Your task to perform on an android device: Go to notification settings Image 0: 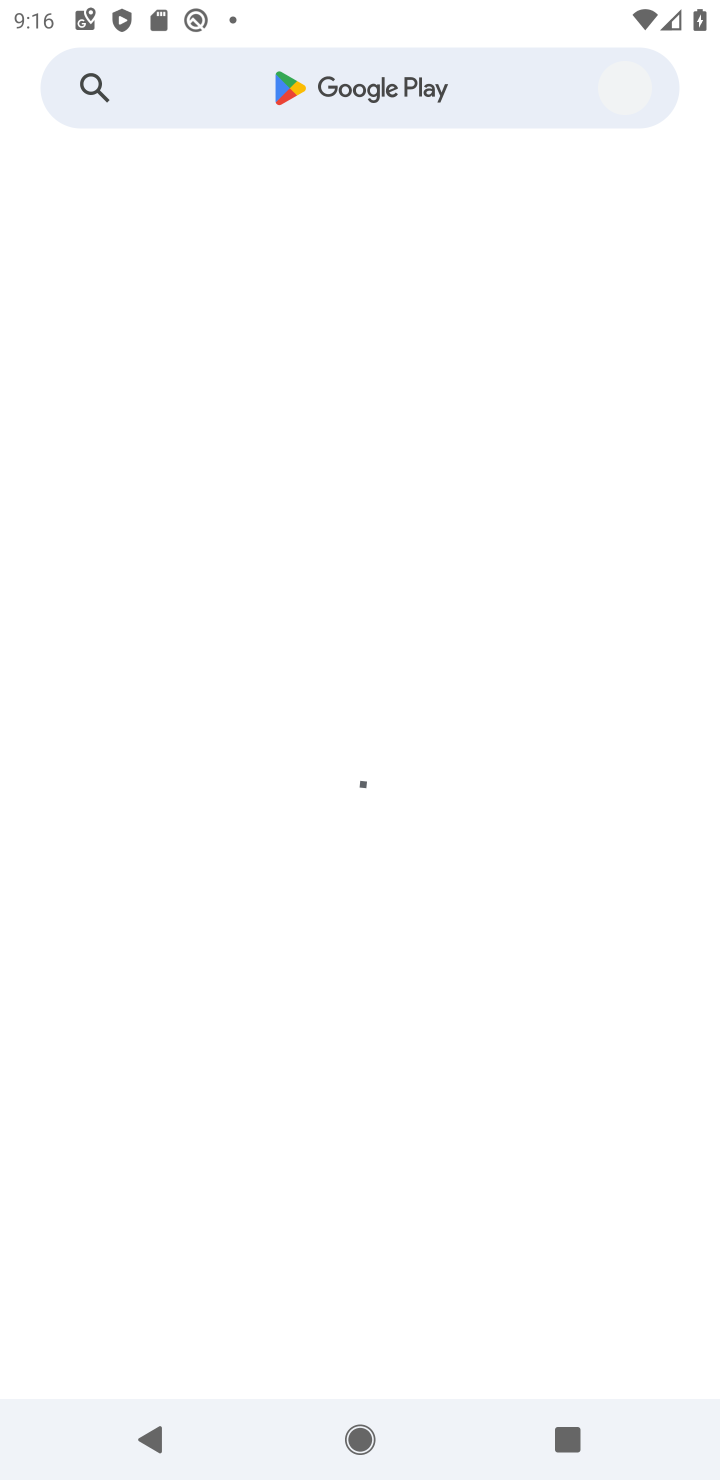
Step 0: press home button
Your task to perform on an android device: Go to notification settings Image 1: 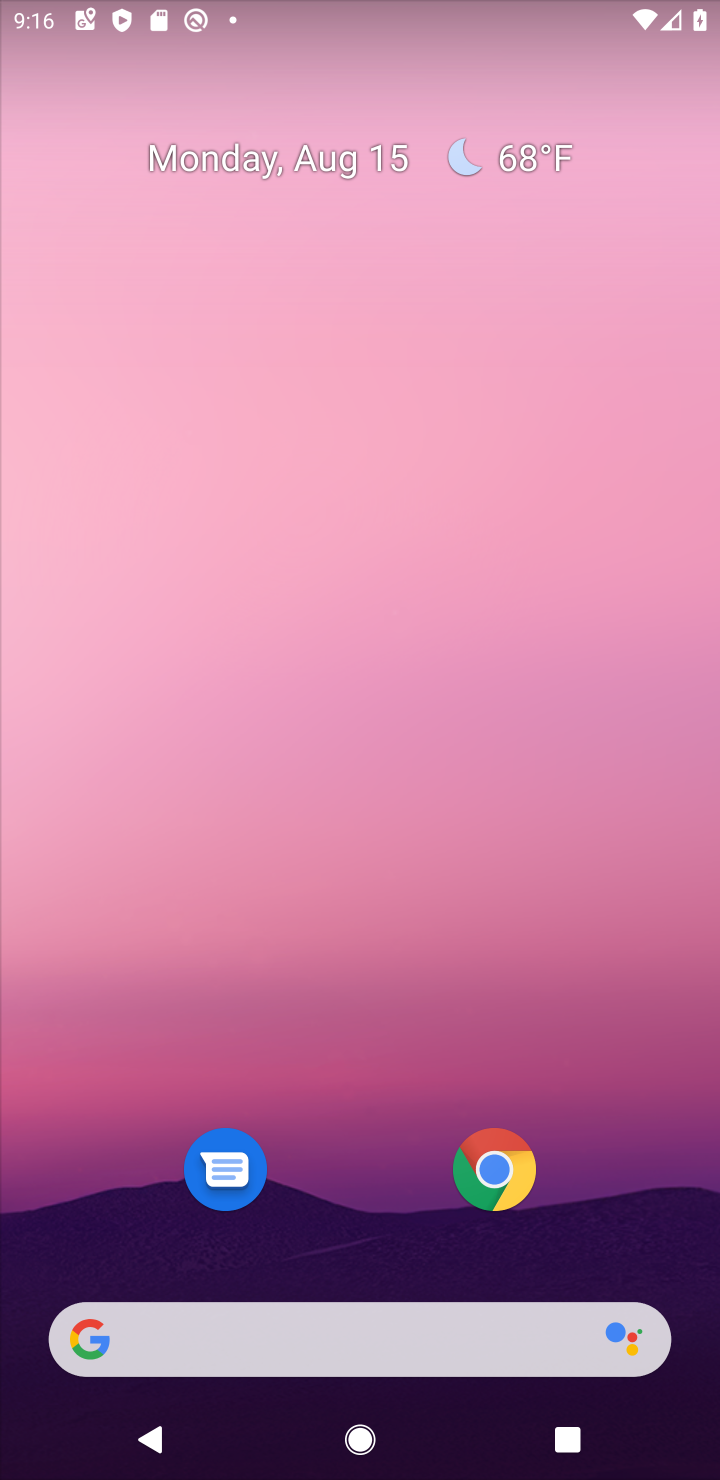
Step 1: drag from (264, 1316) to (384, 134)
Your task to perform on an android device: Go to notification settings Image 2: 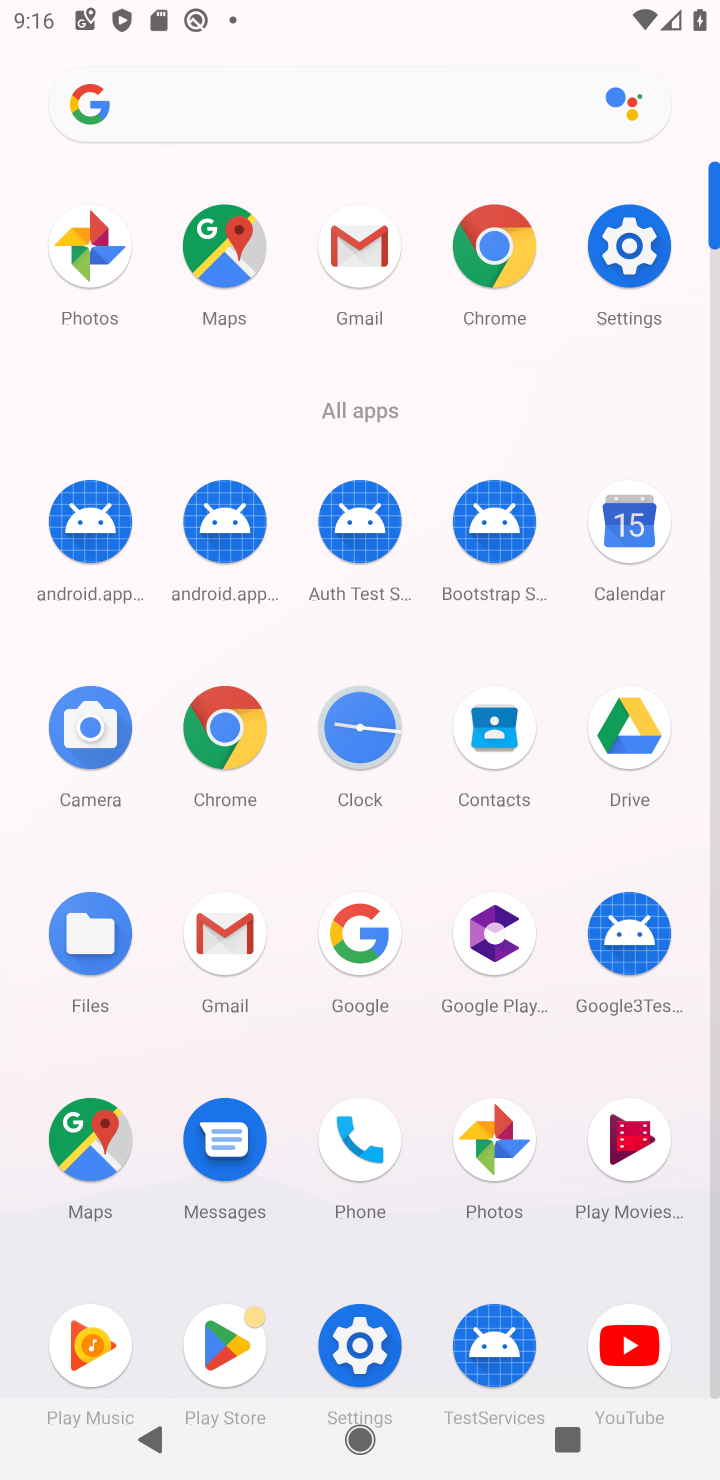
Step 2: click (624, 250)
Your task to perform on an android device: Go to notification settings Image 3: 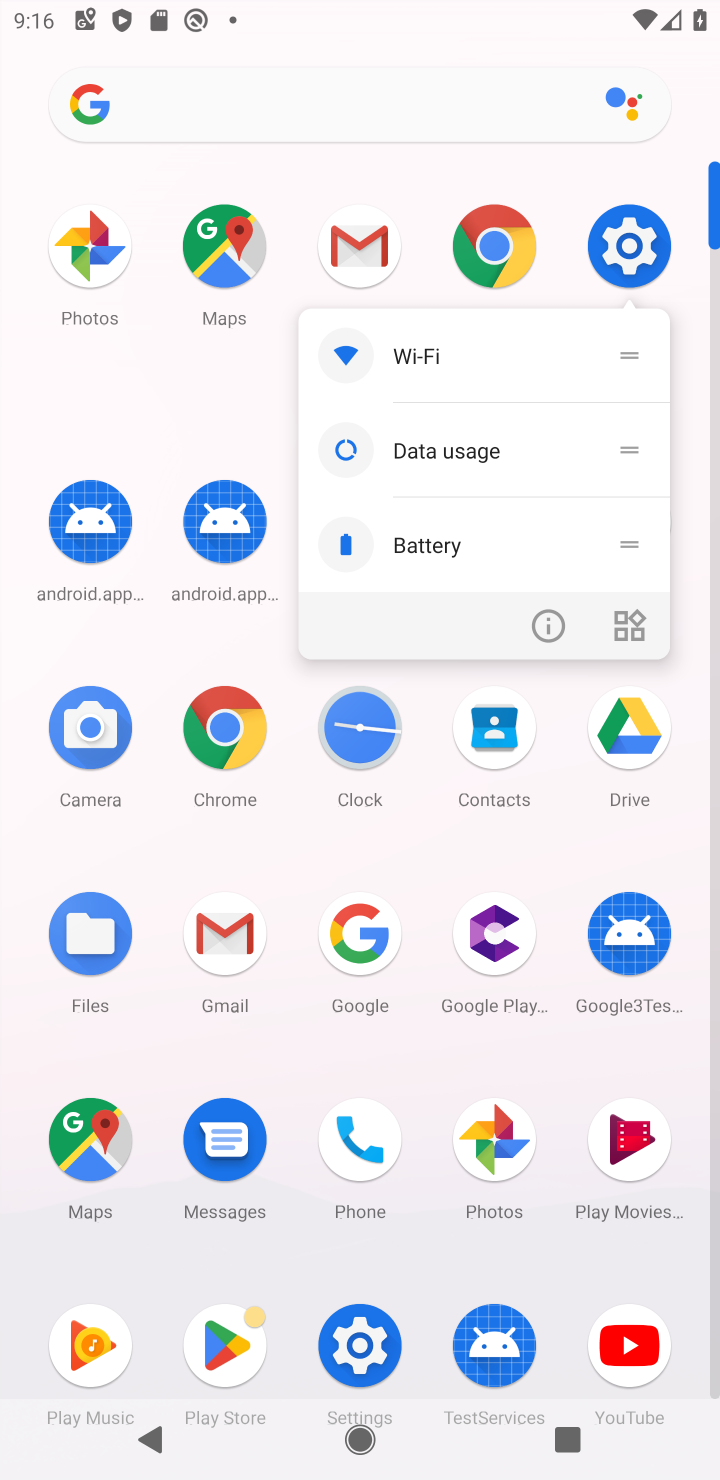
Step 3: click (639, 237)
Your task to perform on an android device: Go to notification settings Image 4: 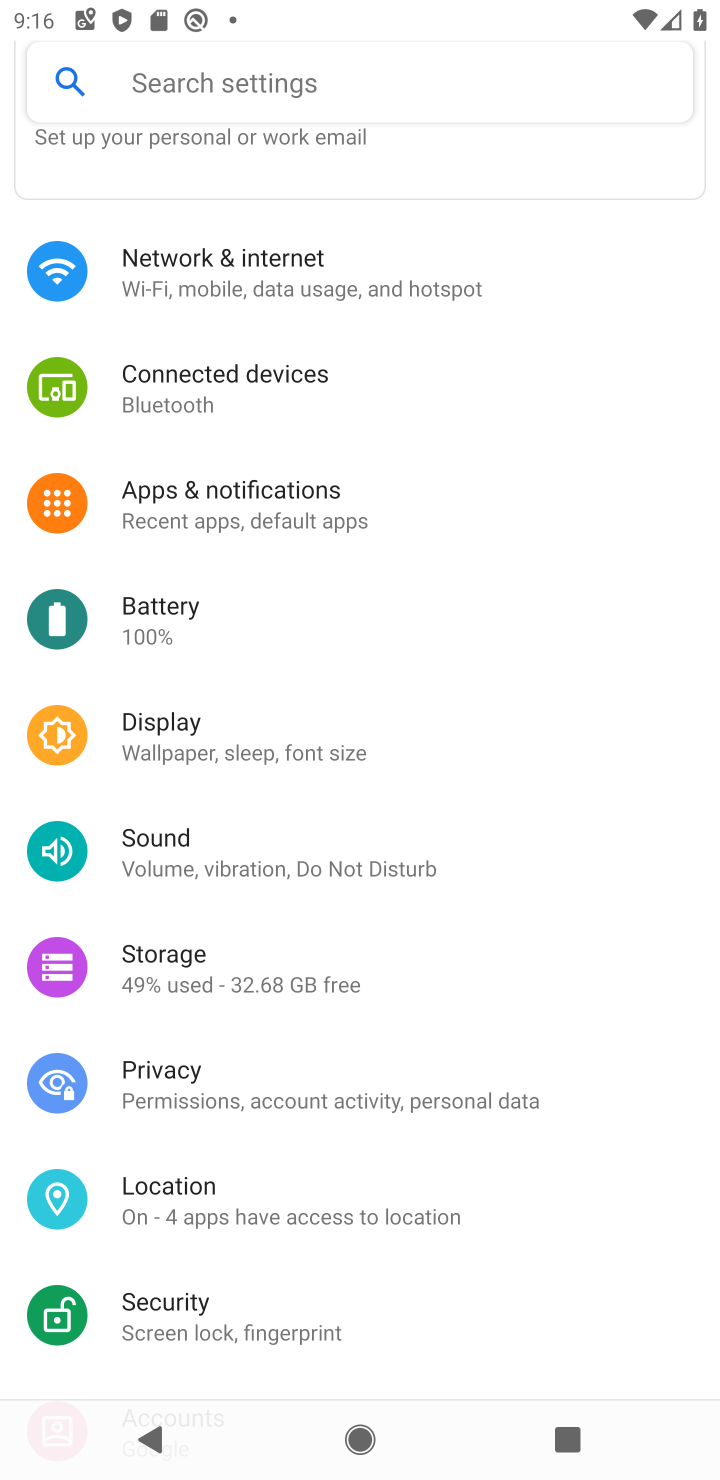
Step 4: click (300, 497)
Your task to perform on an android device: Go to notification settings Image 5: 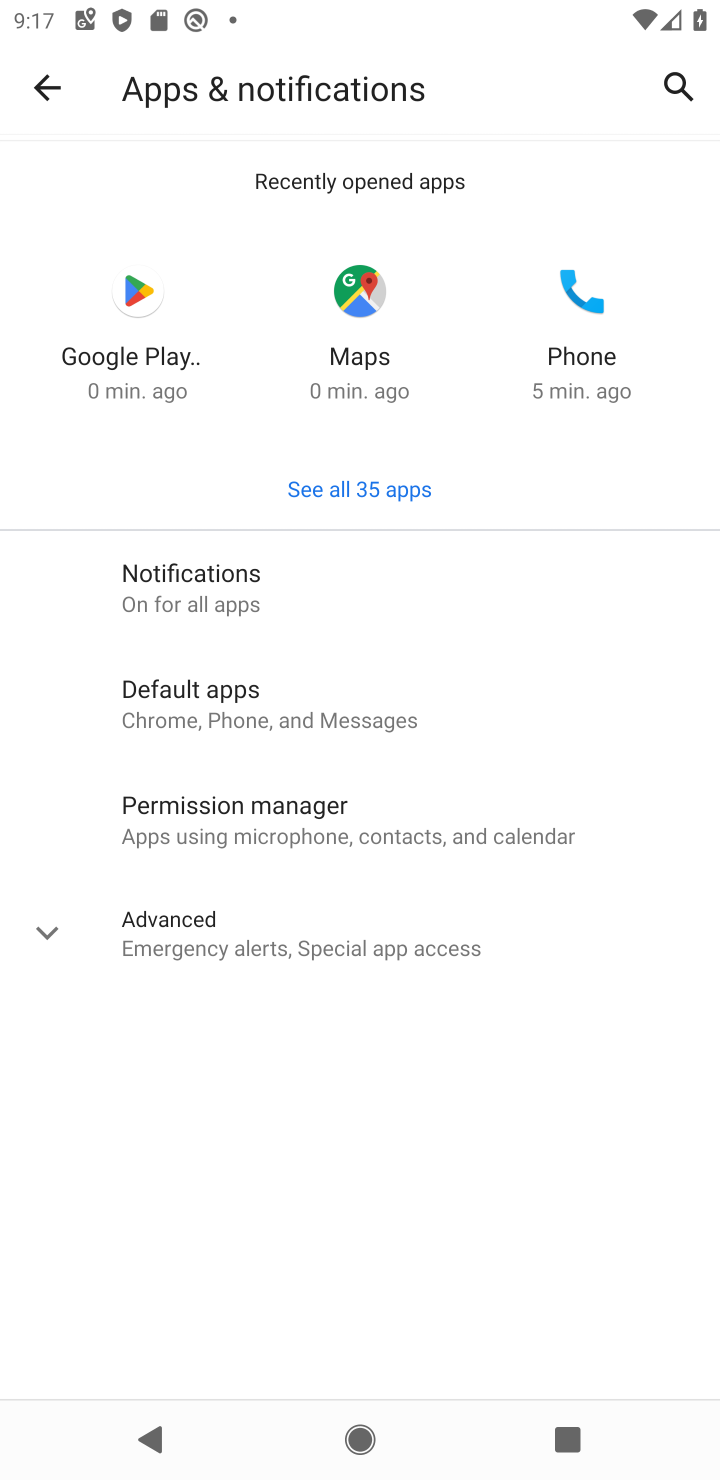
Step 5: click (252, 590)
Your task to perform on an android device: Go to notification settings Image 6: 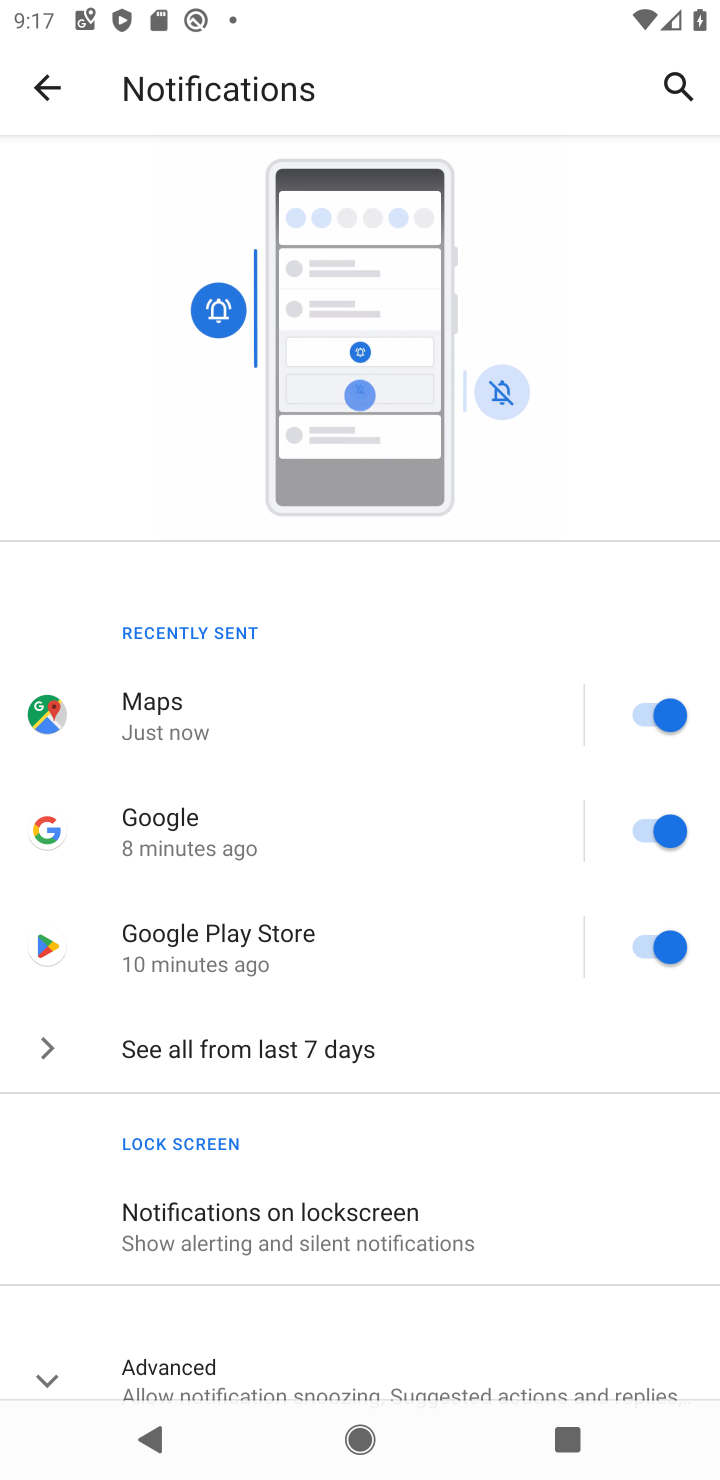
Step 6: task complete